Your task to perform on an android device: Open calendar and show me the third week of next month Image 0: 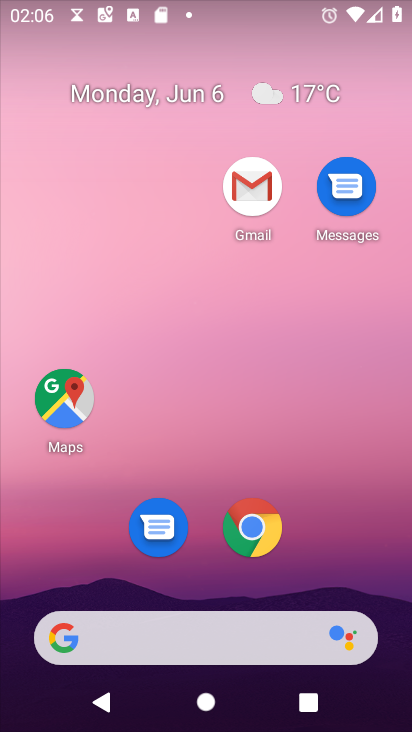
Step 0: drag from (218, 488) to (107, 86)
Your task to perform on an android device: Open calendar and show me the third week of next month Image 1: 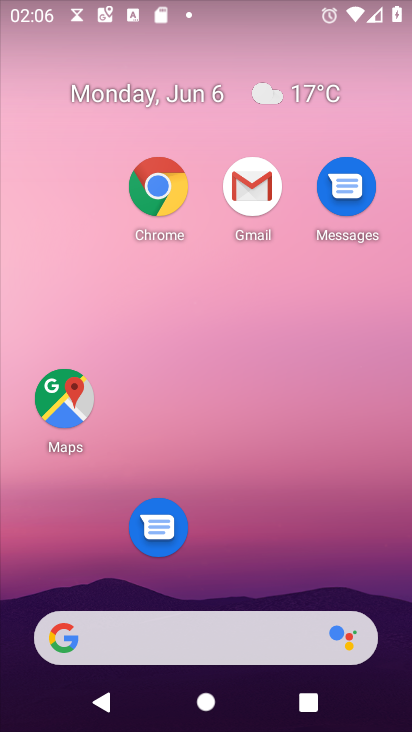
Step 1: drag from (246, 508) to (203, 138)
Your task to perform on an android device: Open calendar and show me the third week of next month Image 2: 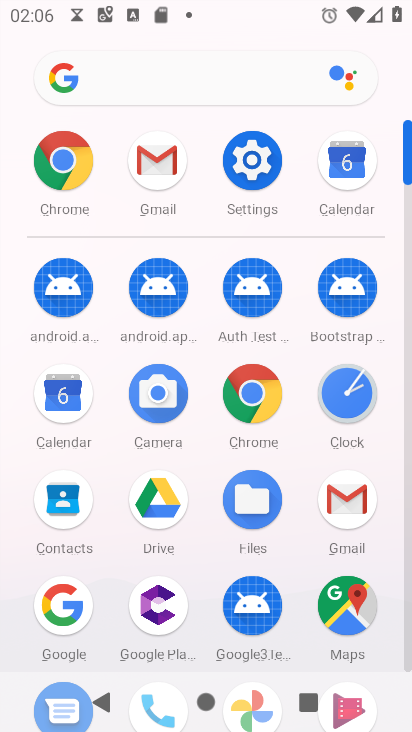
Step 2: click (77, 427)
Your task to perform on an android device: Open calendar and show me the third week of next month Image 3: 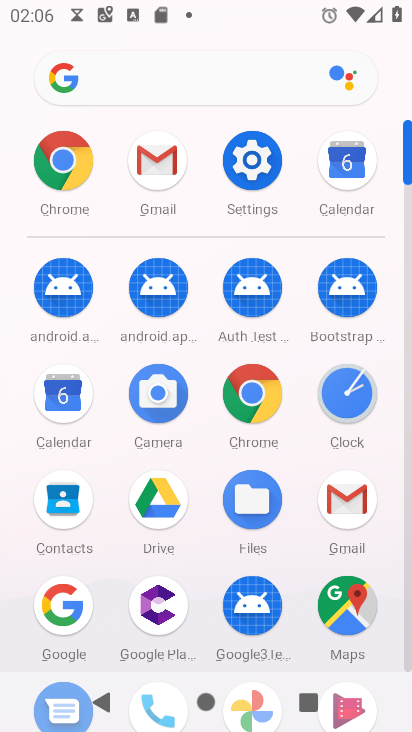
Step 3: click (77, 427)
Your task to perform on an android device: Open calendar and show me the third week of next month Image 4: 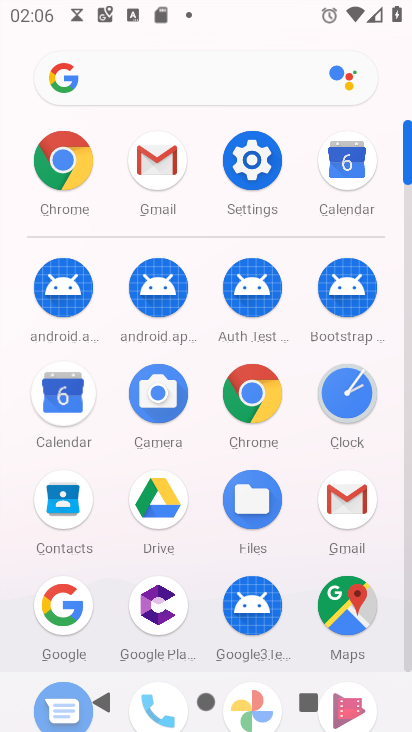
Step 4: click (77, 427)
Your task to perform on an android device: Open calendar and show me the third week of next month Image 5: 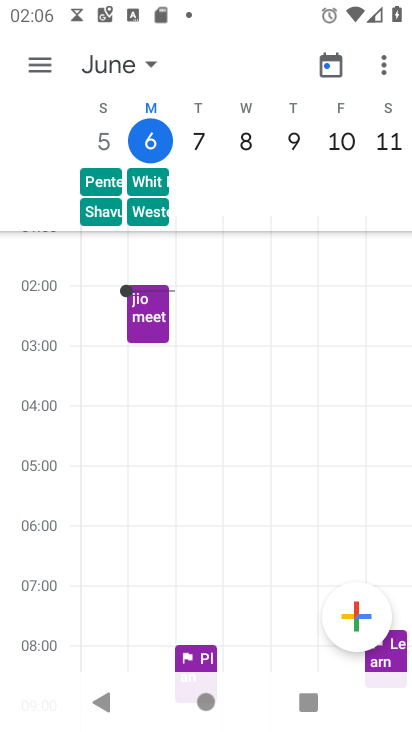
Step 5: click (147, 56)
Your task to perform on an android device: Open calendar and show me the third week of next month Image 6: 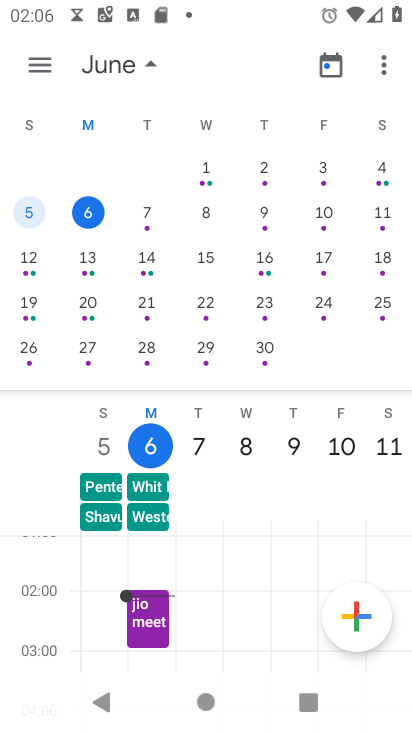
Step 6: click (192, 176)
Your task to perform on an android device: Open calendar and show me the third week of next month Image 7: 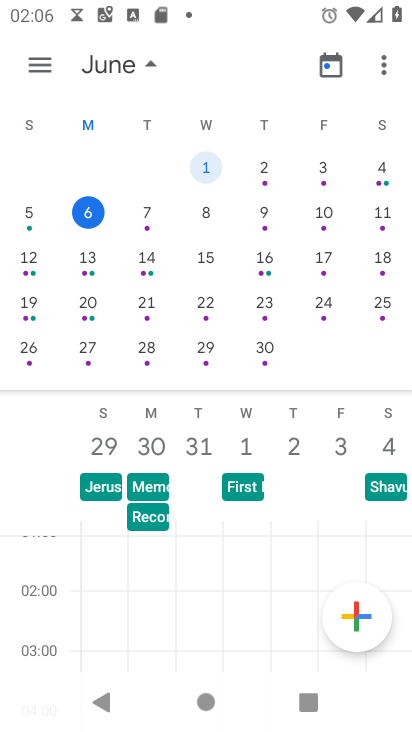
Step 7: drag from (400, 323) to (20, 165)
Your task to perform on an android device: Open calendar and show me the third week of next month Image 8: 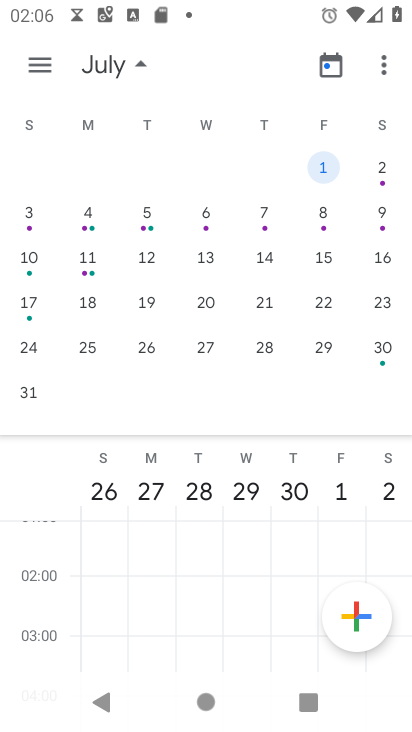
Step 8: click (203, 256)
Your task to perform on an android device: Open calendar and show me the third week of next month Image 9: 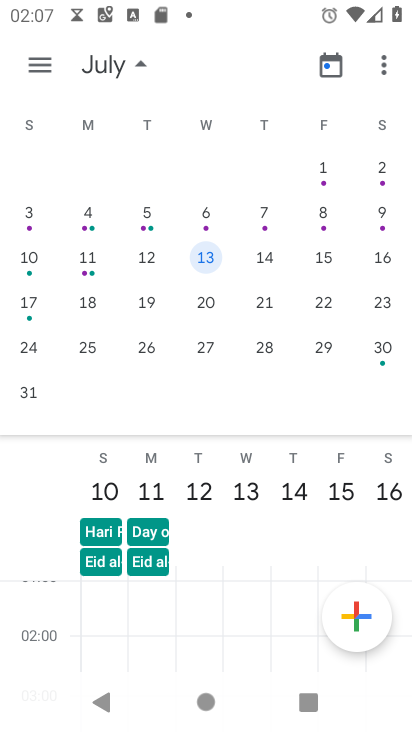
Step 9: task complete